Your task to perform on an android device: delete browsing data in the chrome app Image 0: 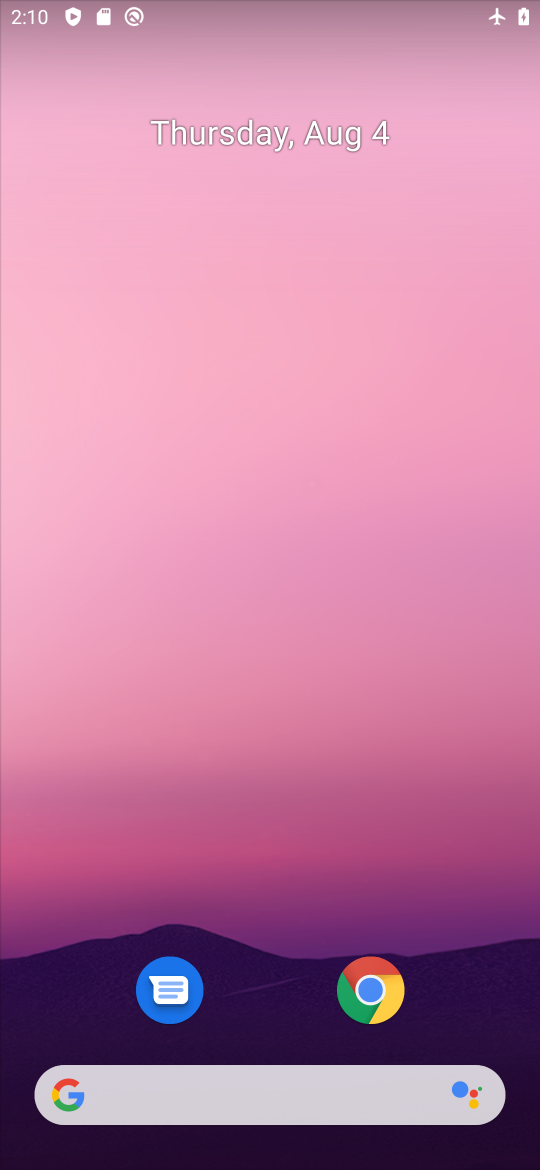
Step 0: drag from (253, 1049) to (216, 530)
Your task to perform on an android device: delete browsing data in the chrome app Image 1: 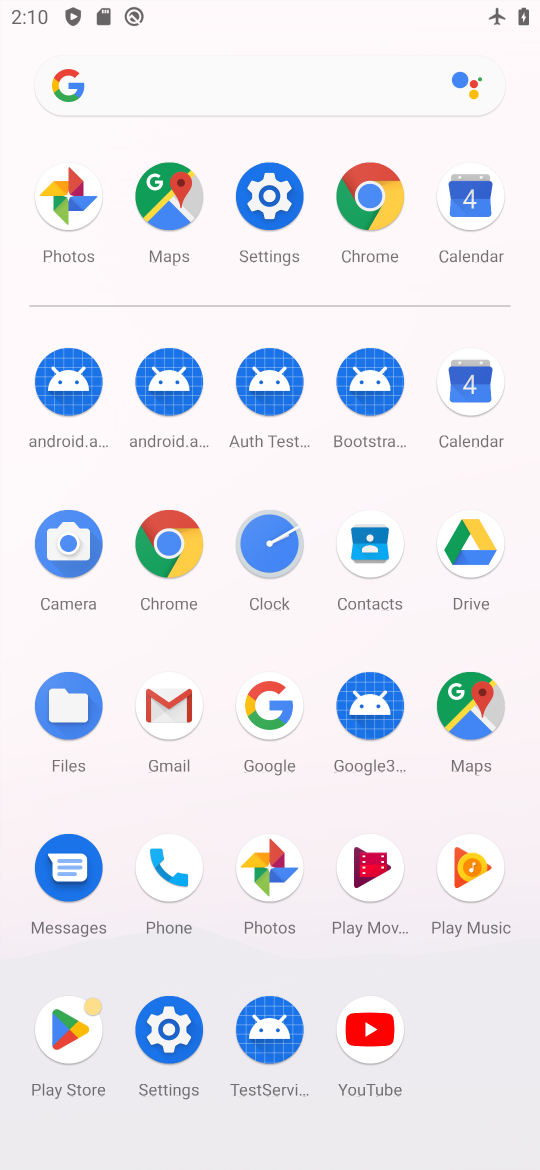
Step 1: click (347, 248)
Your task to perform on an android device: delete browsing data in the chrome app Image 2: 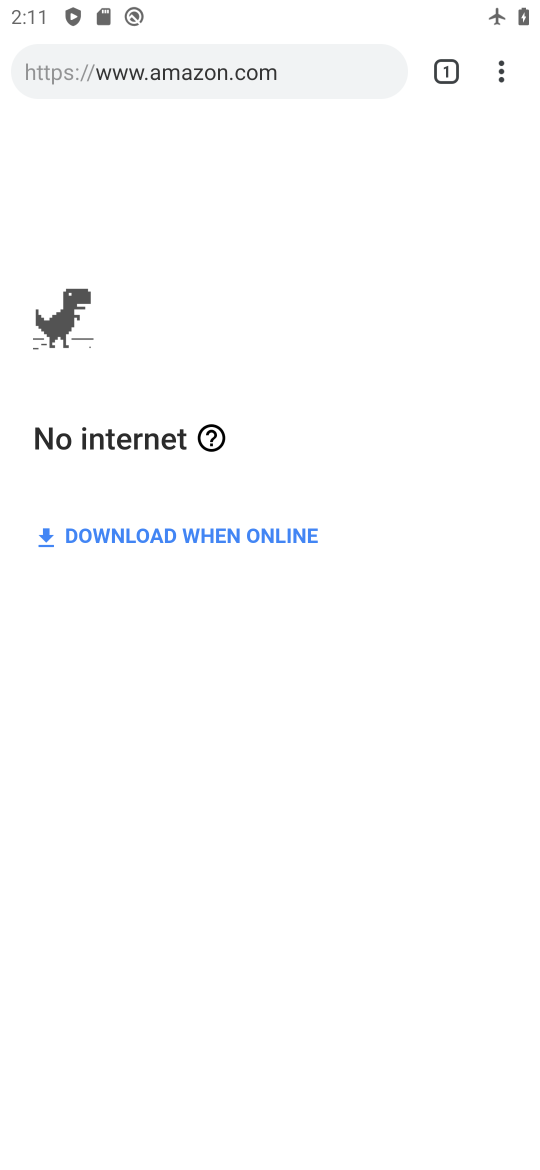
Step 2: task complete